Your task to perform on an android device: Go to settings Image 0: 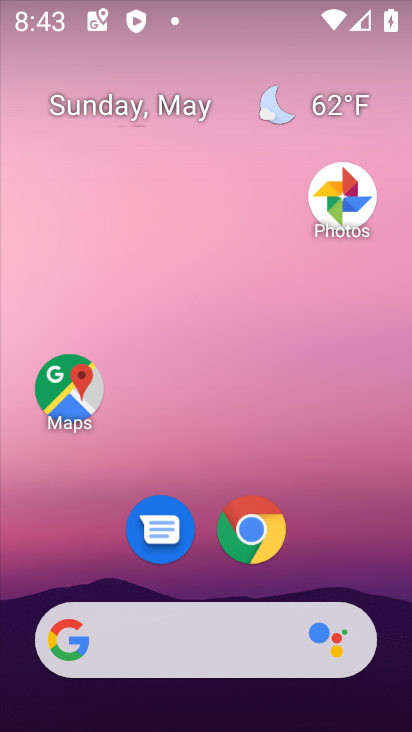
Step 0: drag from (370, 549) to (323, 108)
Your task to perform on an android device: Go to settings Image 1: 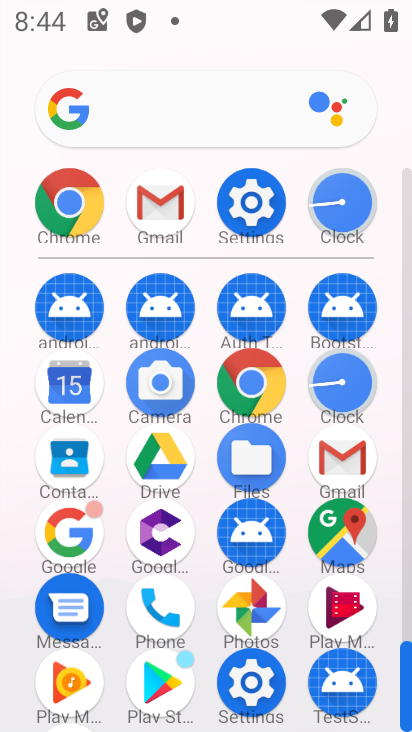
Step 1: click (267, 678)
Your task to perform on an android device: Go to settings Image 2: 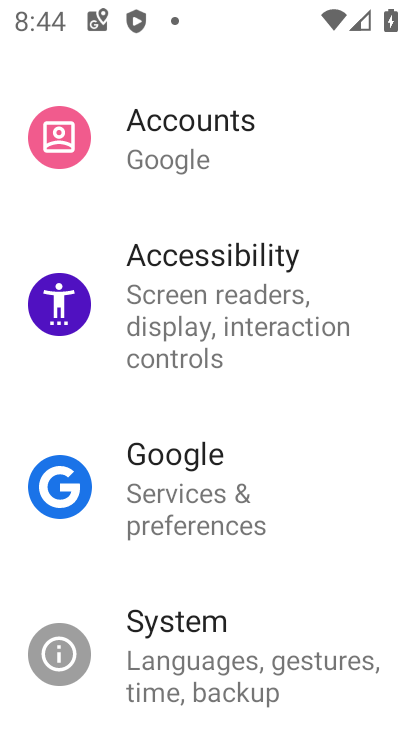
Step 2: task complete